Your task to perform on an android device: Go to Google maps Image 0: 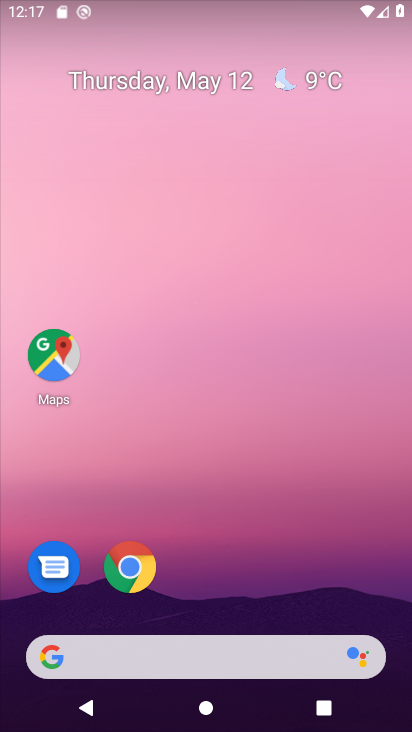
Step 0: click (59, 366)
Your task to perform on an android device: Go to Google maps Image 1: 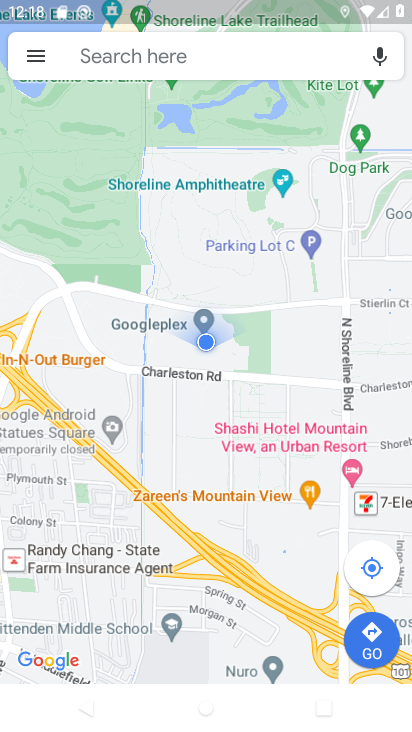
Step 1: task complete